Your task to perform on an android device: Open calendar and show me the second week of next month Image 0: 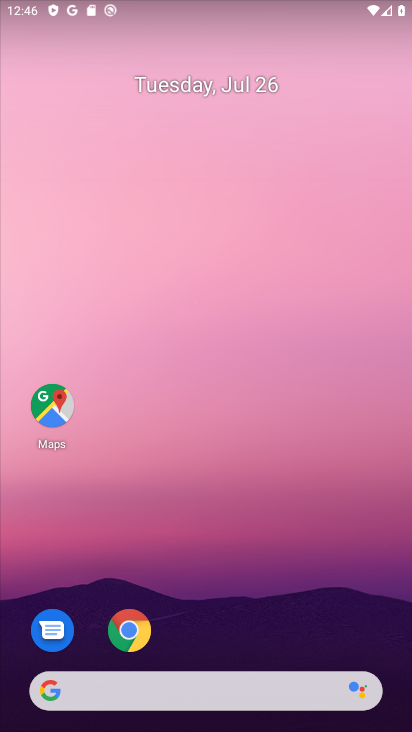
Step 0: drag from (287, 594) to (398, 55)
Your task to perform on an android device: Open calendar and show me the second week of next month Image 1: 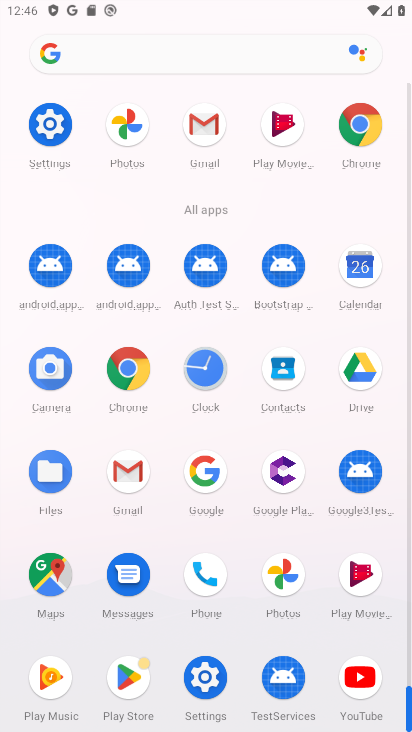
Step 1: click (276, 573)
Your task to perform on an android device: Open calendar and show me the second week of next month Image 2: 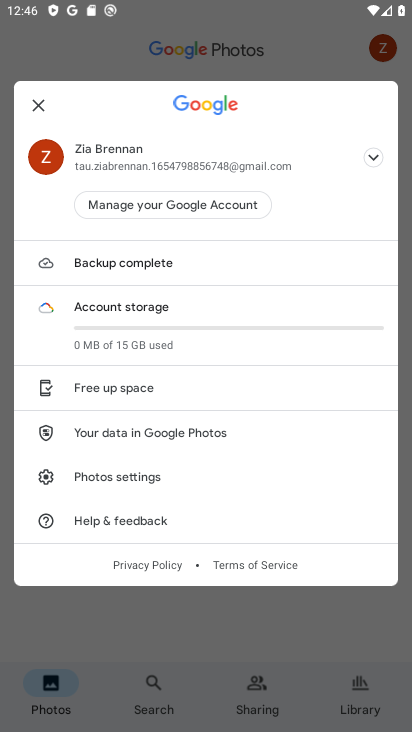
Step 2: click (33, 111)
Your task to perform on an android device: Open calendar and show me the second week of next month Image 3: 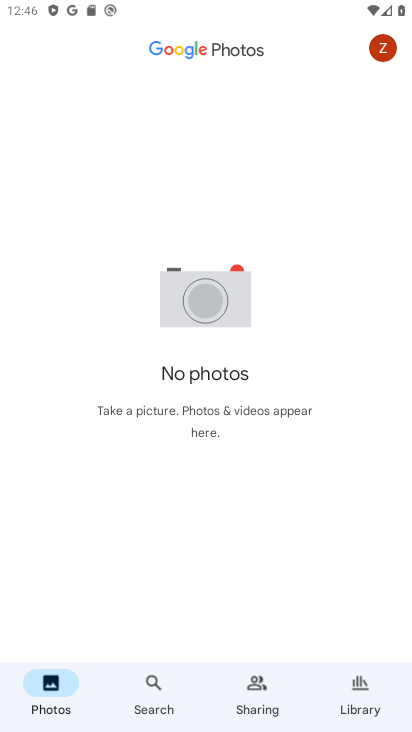
Step 3: press home button
Your task to perform on an android device: Open calendar and show me the second week of next month Image 4: 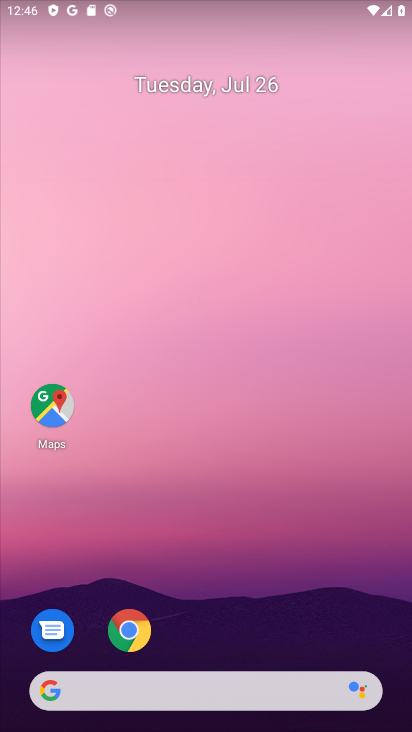
Step 4: drag from (290, 616) to (410, 40)
Your task to perform on an android device: Open calendar and show me the second week of next month Image 5: 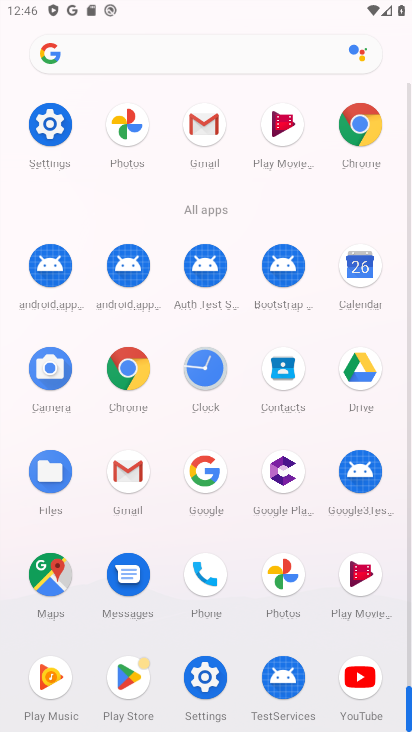
Step 5: click (357, 277)
Your task to perform on an android device: Open calendar and show me the second week of next month Image 6: 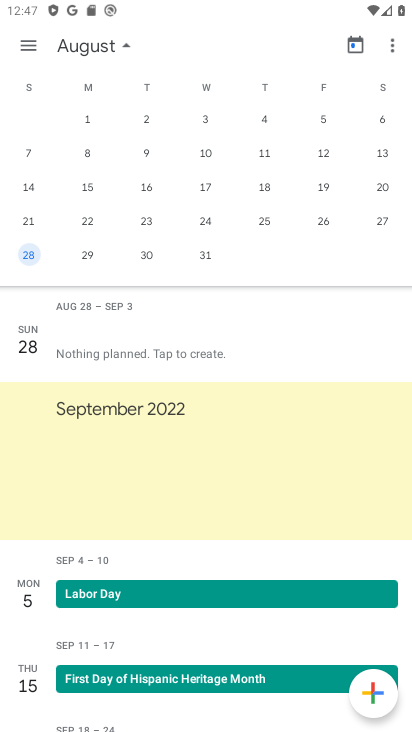
Step 6: drag from (337, 209) to (29, 147)
Your task to perform on an android device: Open calendar and show me the second week of next month Image 7: 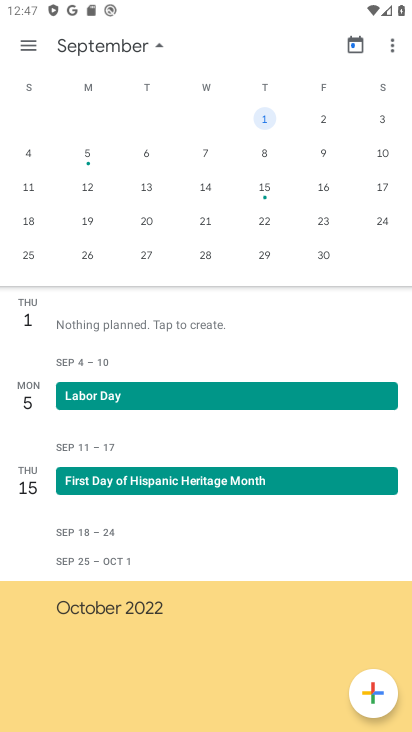
Step 7: click (212, 190)
Your task to perform on an android device: Open calendar and show me the second week of next month Image 8: 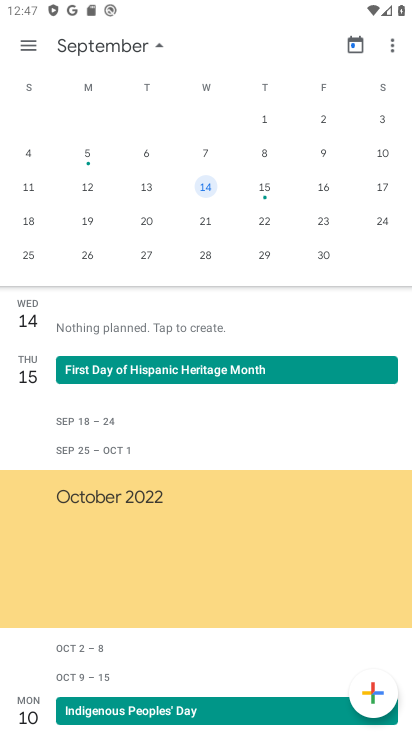
Step 8: task complete